Your task to perform on an android device: turn on bluetooth scan Image 0: 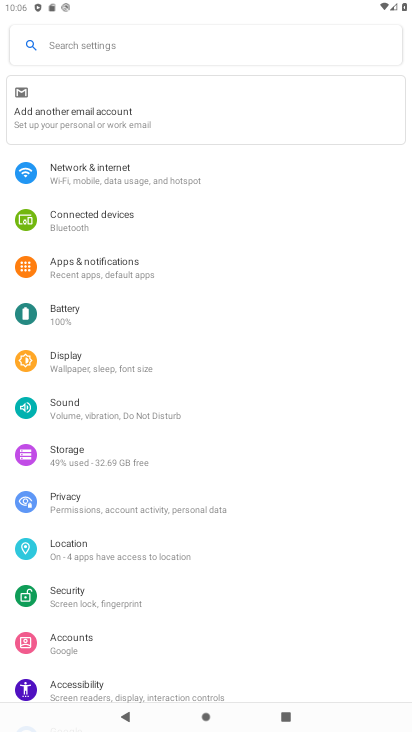
Step 0: press home button
Your task to perform on an android device: turn on bluetooth scan Image 1: 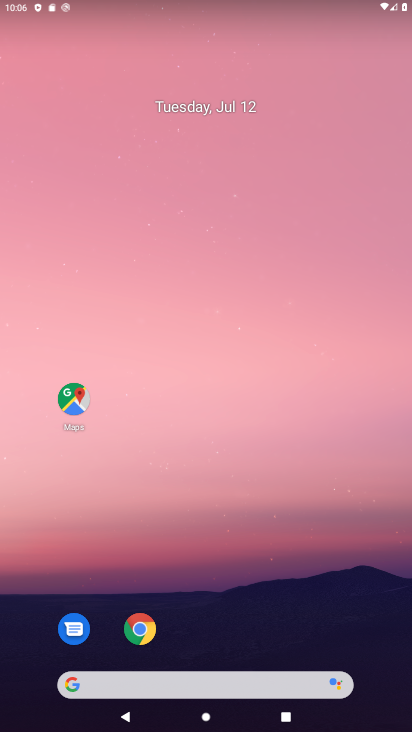
Step 1: drag from (297, 560) to (306, 3)
Your task to perform on an android device: turn on bluetooth scan Image 2: 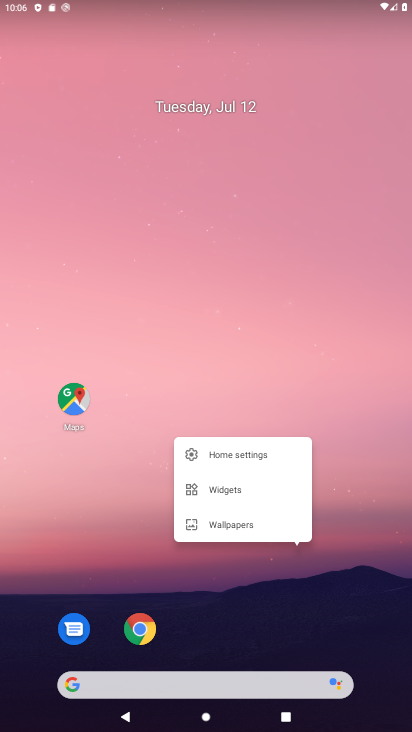
Step 2: drag from (389, 595) to (365, 112)
Your task to perform on an android device: turn on bluetooth scan Image 3: 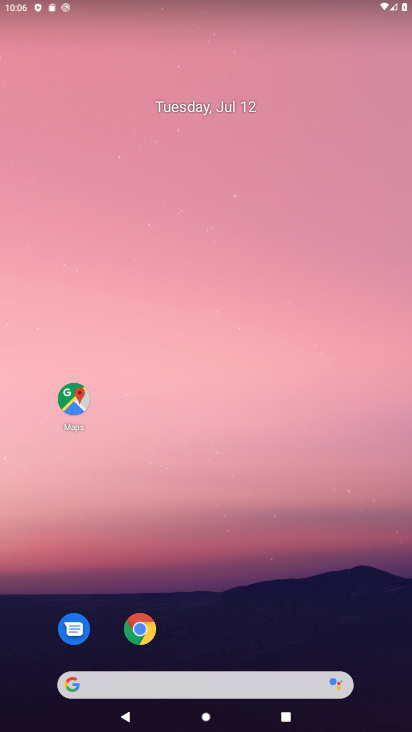
Step 3: drag from (219, 642) to (369, 79)
Your task to perform on an android device: turn on bluetooth scan Image 4: 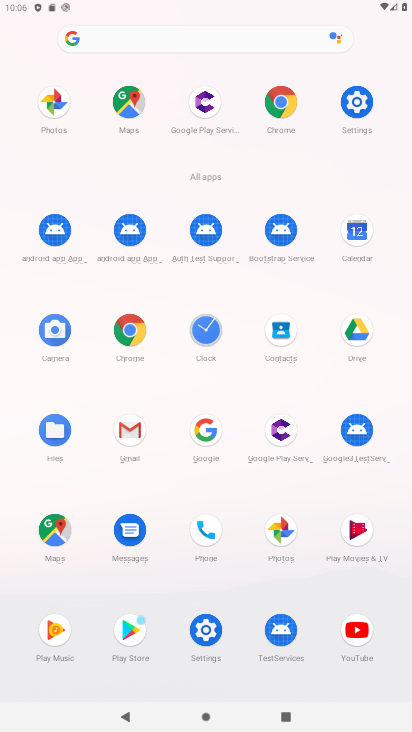
Step 4: click (209, 631)
Your task to perform on an android device: turn on bluetooth scan Image 5: 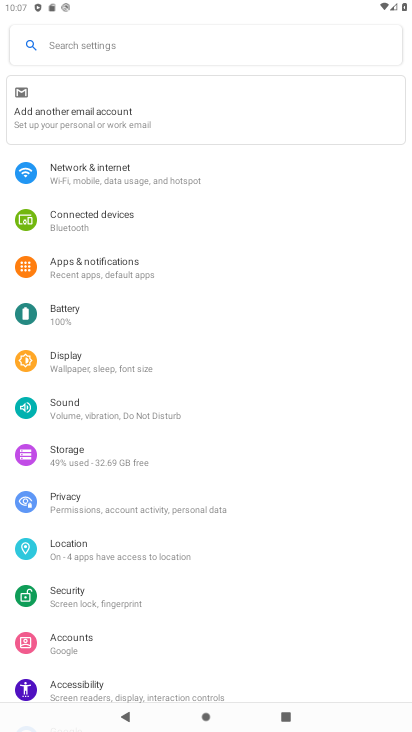
Step 5: click (142, 551)
Your task to perform on an android device: turn on bluetooth scan Image 6: 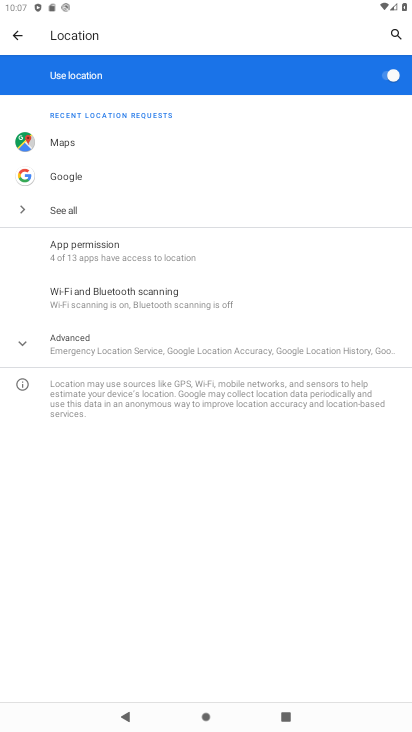
Step 6: click (146, 303)
Your task to perform on an android device: turn on bluetooth scan Image 7: 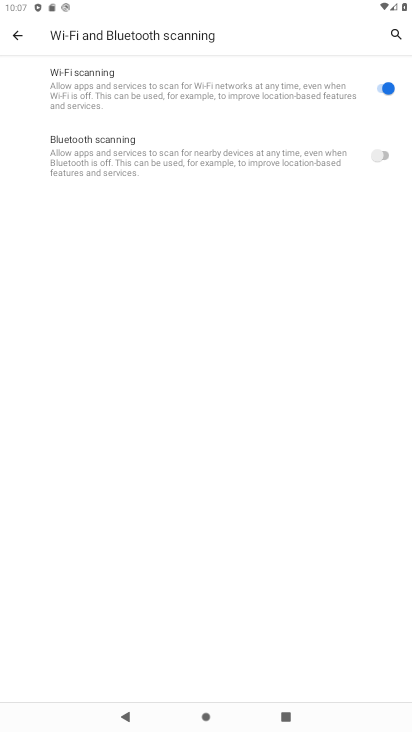
Step 7: click (387, 158)
Your task to perform on an android device: turn on bluetooth scan Image 8: 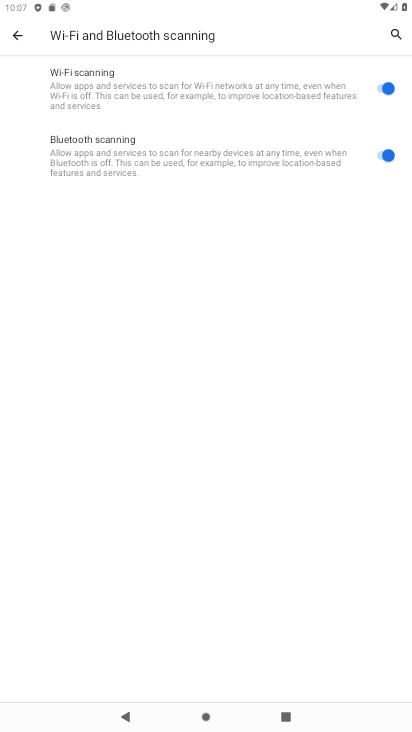
Step 8: task complete